Your task to perform on an android device: Open Google Maps Image 0: 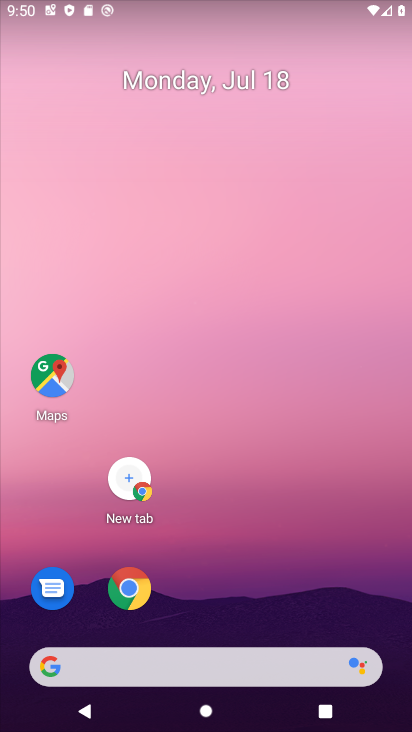
Step 0: click (70, 366)
Your task to perform on an android device: Open Google Maps Image 1: 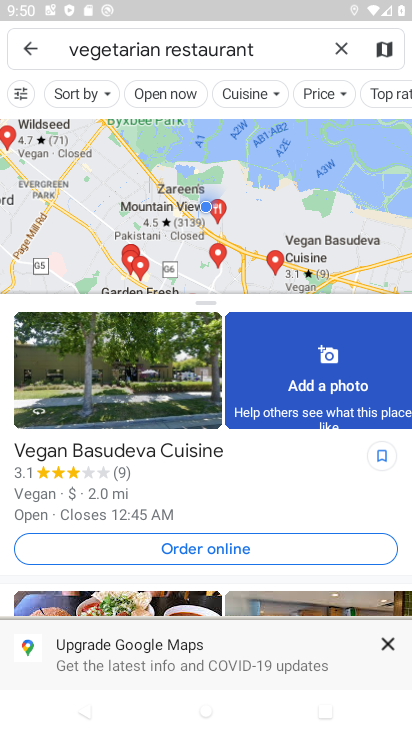
Step 1: task complete